Your task to perform on an android device: turn off location history Image 0: 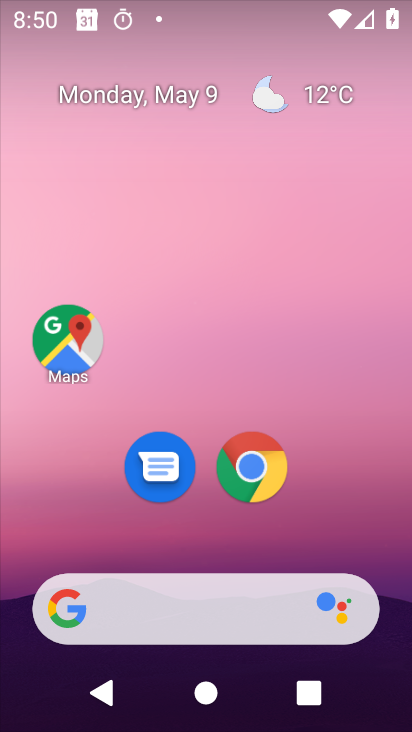
Step 0: click (65, 338)
Your task to perform on an android device: turn off location history Image 1: 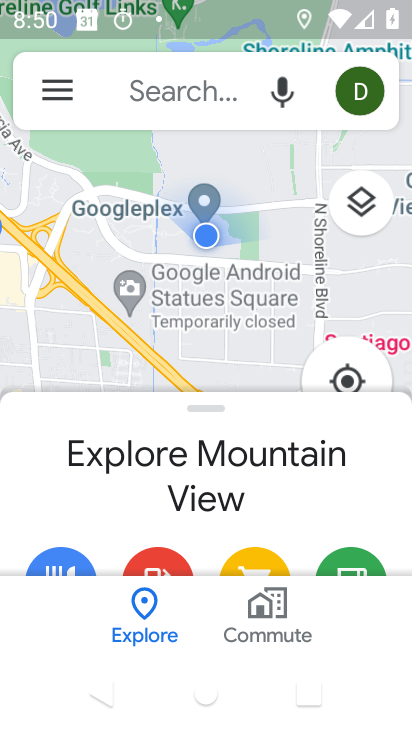
Step 1: click (62, 93)
Your task to perform on an android device: turn off location history Image 2: 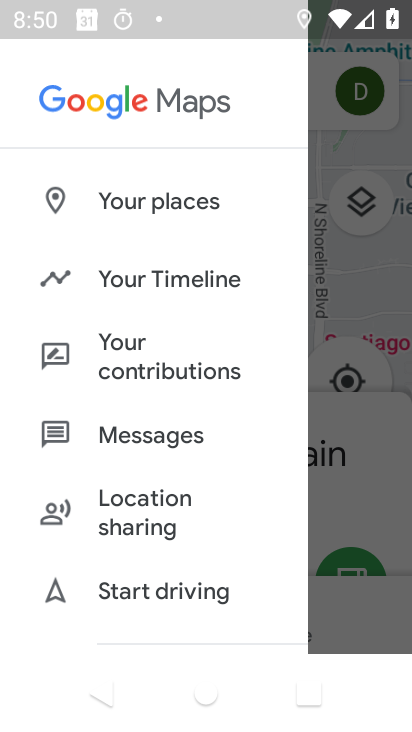
Step 2: click (122, 276)
Your task to perform on an android device: turn off location history Image 3: 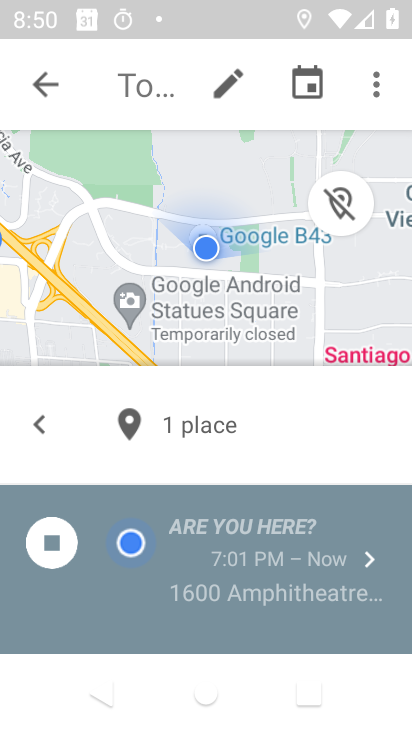
Step 3: click (375, 95)
Your task to perform on an android device: turn off location history Image 4: 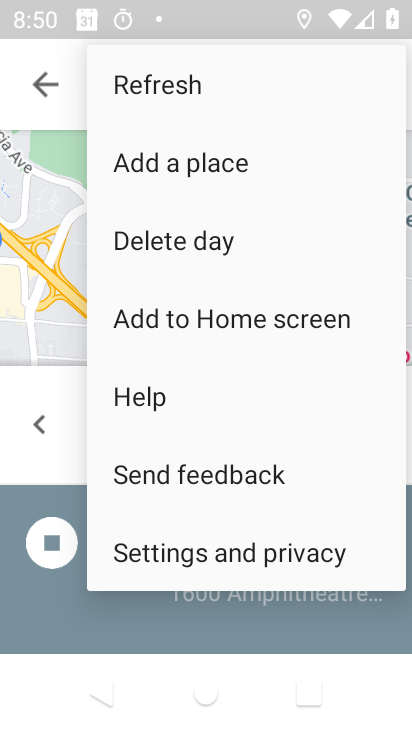
Step 4: click (205, 551)
Your task to perform on an android device: turn off location history Image 5: 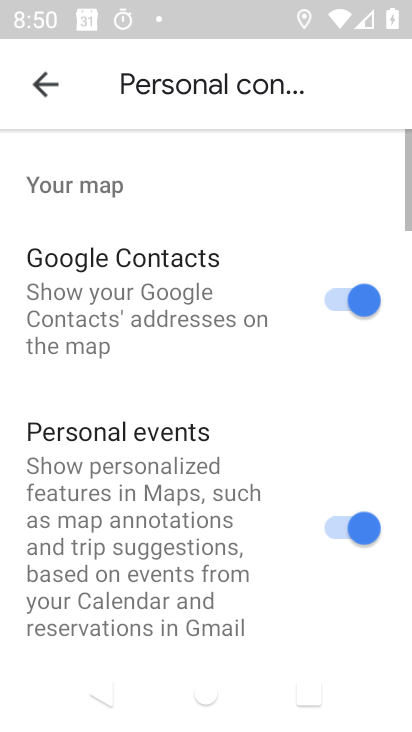
Step 5: drag from (205, 549) to (230, 136)
Your task to perform on an android device: turn off location history Image 6: 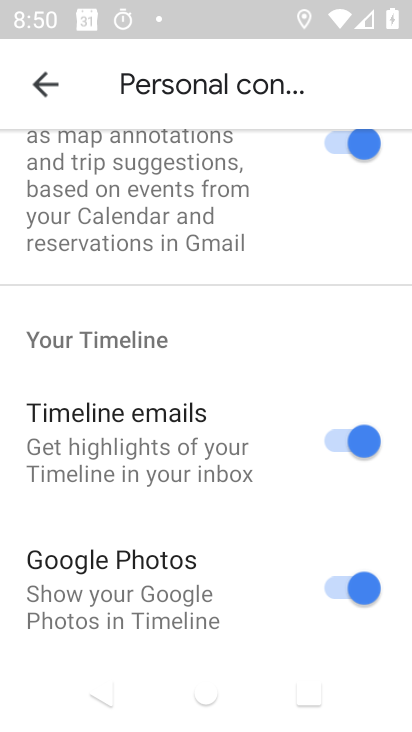
Step 6: drag from (129, 538) to (126, 184)
Your task to perform on an android device: turn off location history Image 7: 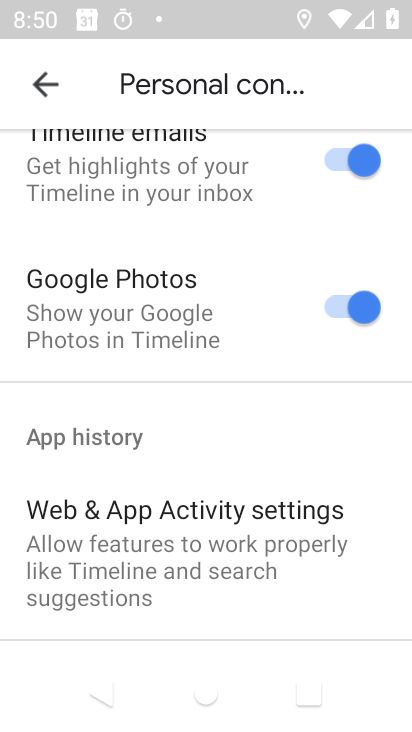
Step 7: drag from (123, 535) to (129, 163)
Your task to perform on an android device: turn off location history Image 8: 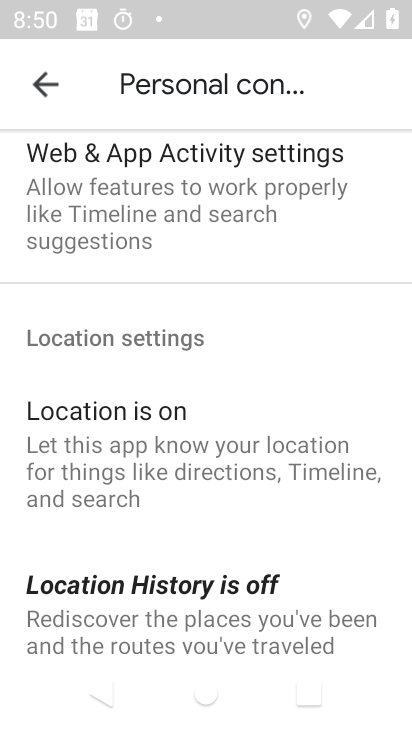
Step 8: click (145, 595)
Your task to perform on an android device: turn off location history Image 9: 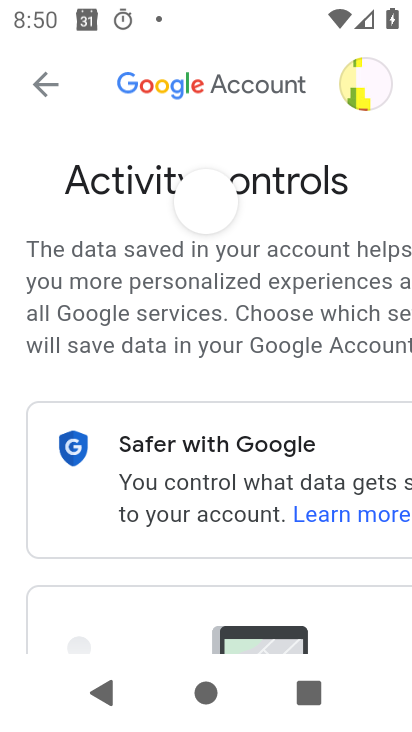
Step 9: drag from (184, 522) to (205, 166)
Your task to perform on an android device: turn off location history Image 10: 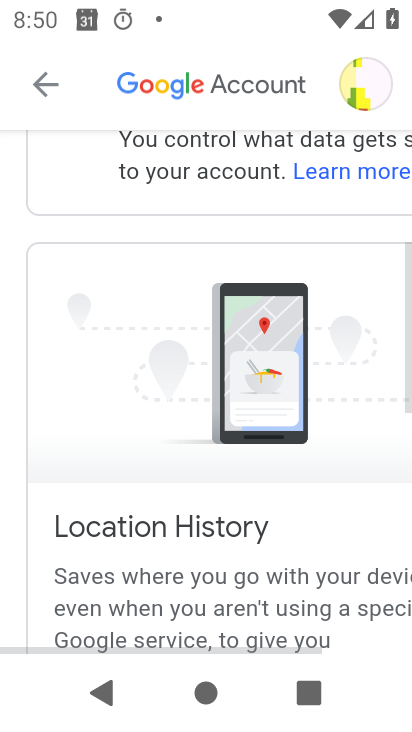
Step 10: drag from (177, 569) to (209, 119)
Your task to perform on an android device: turn off location history Image 11: 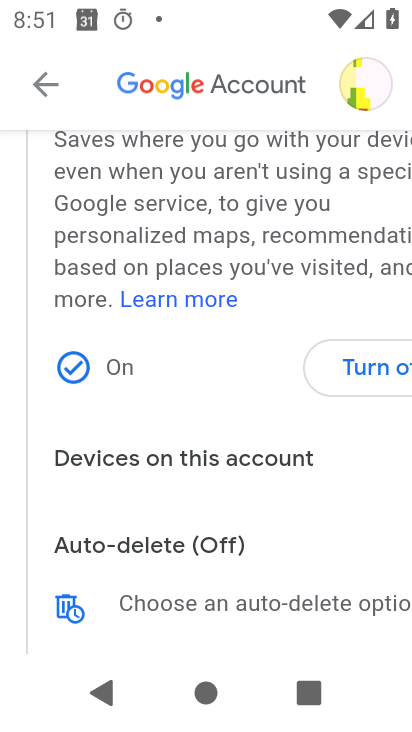
Step 11: click (358, 372)
Your task to perform on an android device: turn off location history Image 12: 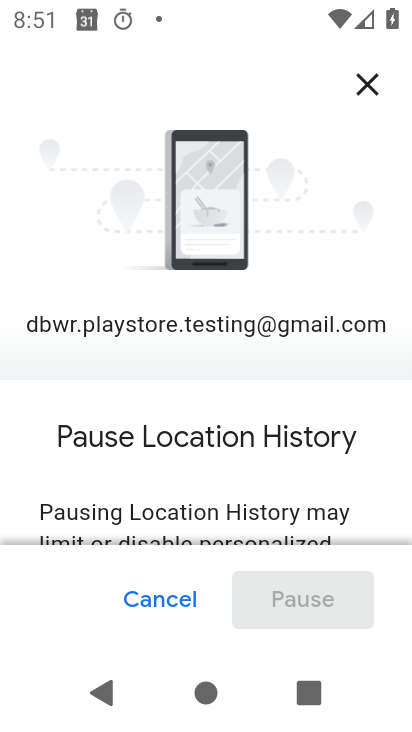
Step 12: drag from (232, 516) to (234, 93)
Your task to perform on an android device: turn off location history Image 13: 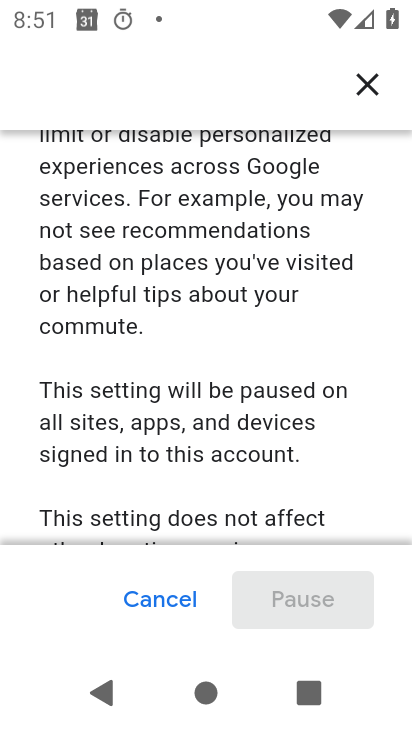
Step 13: drag from (175, 434) to (168, 1)
Your task to perform on an android device: turn off location history Image 14: 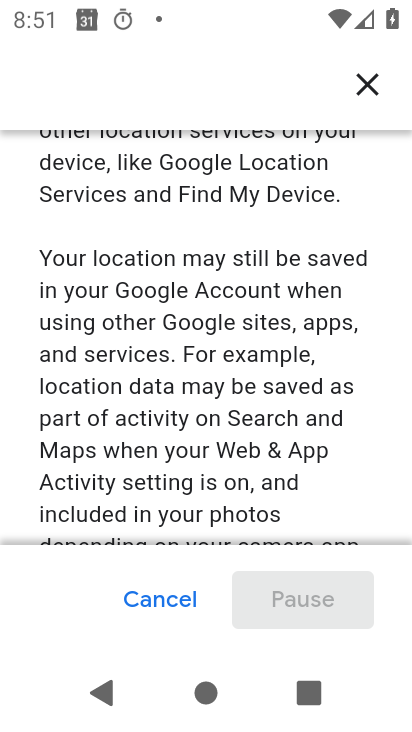
Step 14: drag from (197, 434) to (210, 57)
Your task to perform on an android device: turn off location history Image 15: 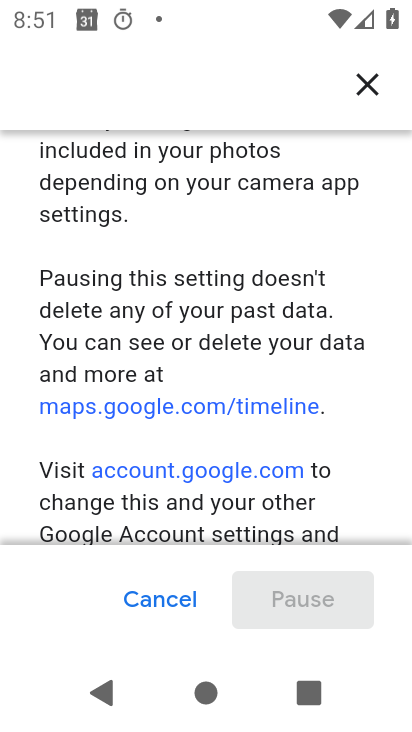
Step 15: drag from (200, 450) to (206, 61)
Your task to perform on an android device: turn off location history Image 16: 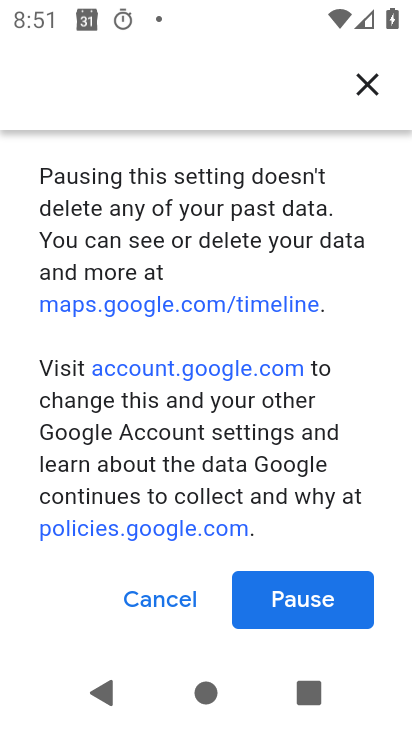
Step 16: click (311, 610)
Your task to perform on an android device: turn off location history Image 17: 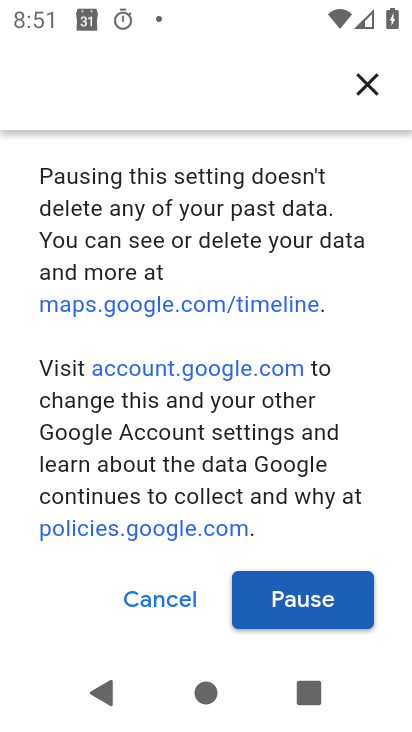
Step 17: click (314, 608)
Your task to perform on an android device: turn off location history Image 18: 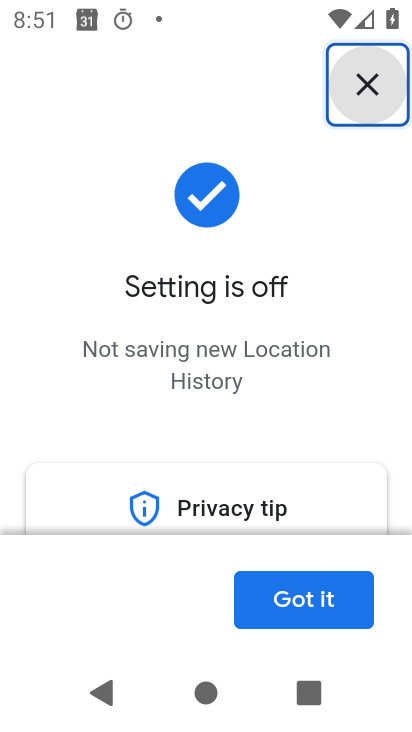
Step 18: click (314, 608)
Your task to perform on an android device: turn off location history Image 19: 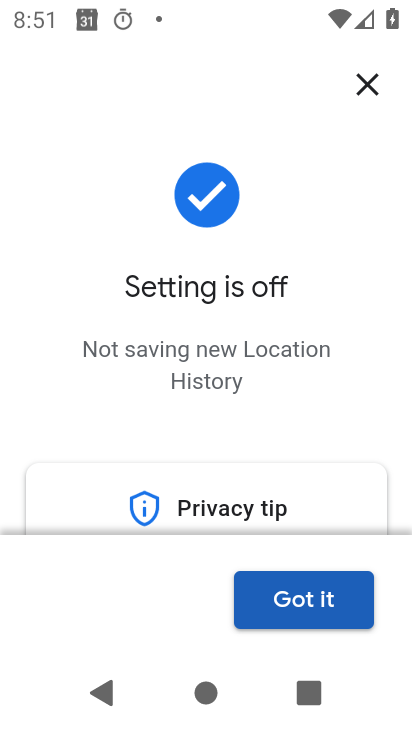
Step 19: click (315, 606)
Your task to perform on an android device: turn off location history Image 20: 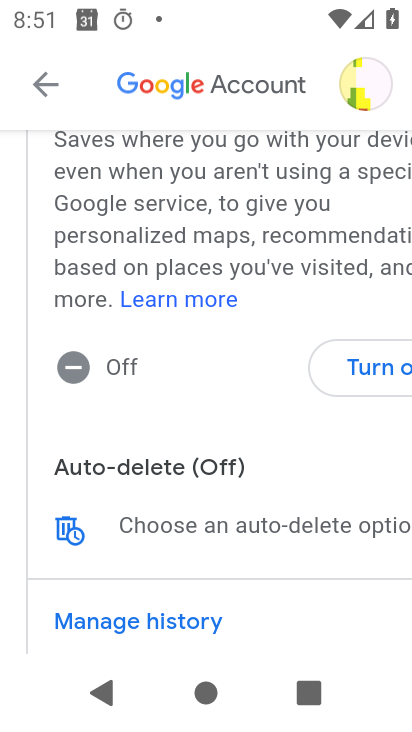
Step 20: task complete